Your task to perform on an android device: delete browsing data in the chrome app Image 0: 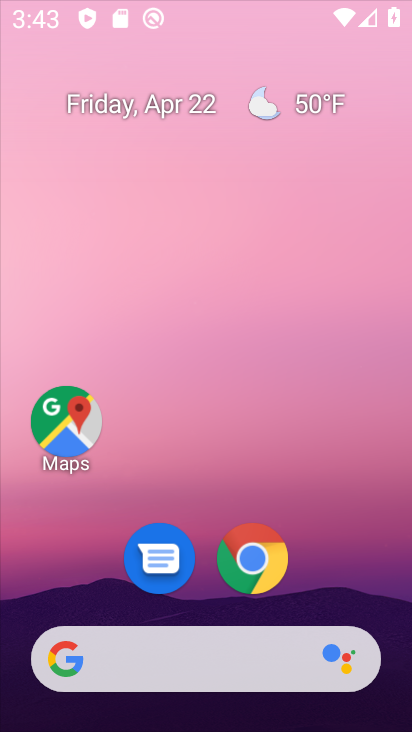
Step 0: click (341, 182)
Your task to perform on an android device: delete browsing data in the chrome app Image 1: 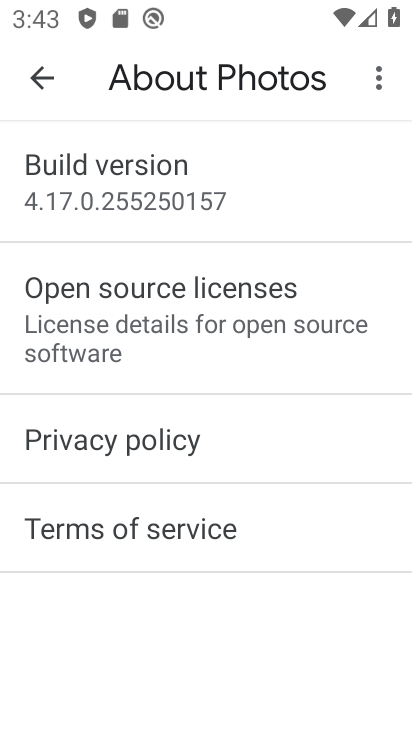
Step 1: press home button
Your task to perform on an android device: delete browsing data in the chrome app Image 2: 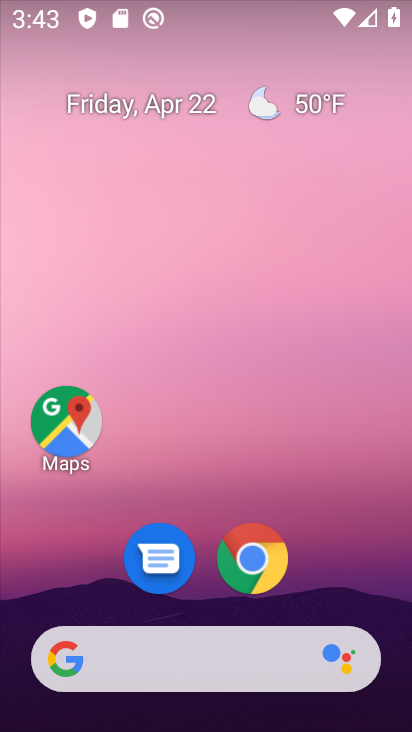
Step 2: drag from (319, 570) to (342, 102)
Your task to perform on an android device: delete browsing data in the chrome app Image 3: 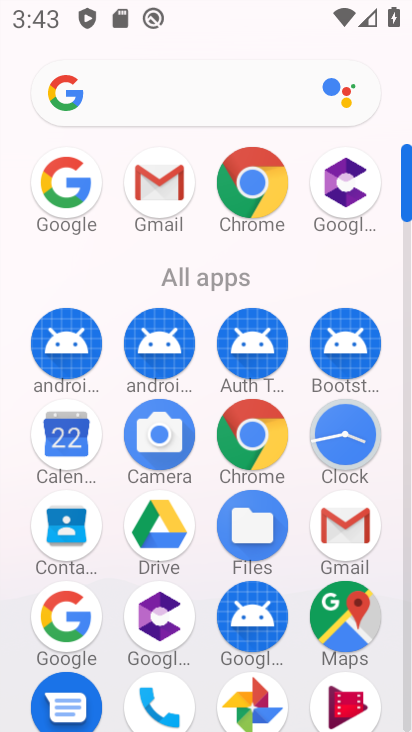
Step 3: click (258, 213)
Your task to perform on an android device: delete browsing data in the chrome app Image 4: 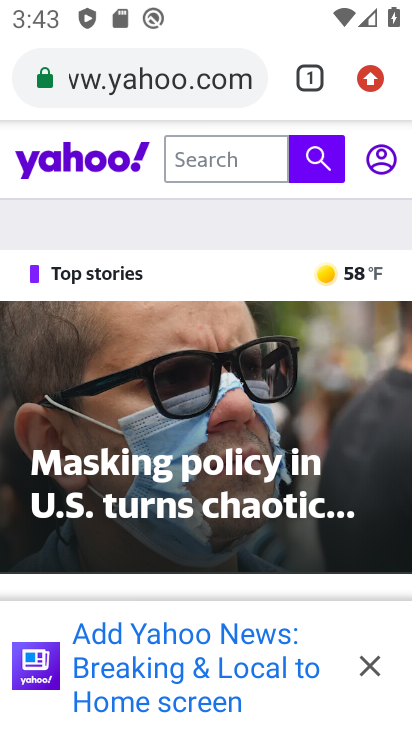
Step 4: click (367, 77)
Your task to perform on an android device: delete browsing data in the chrome app Image 5: 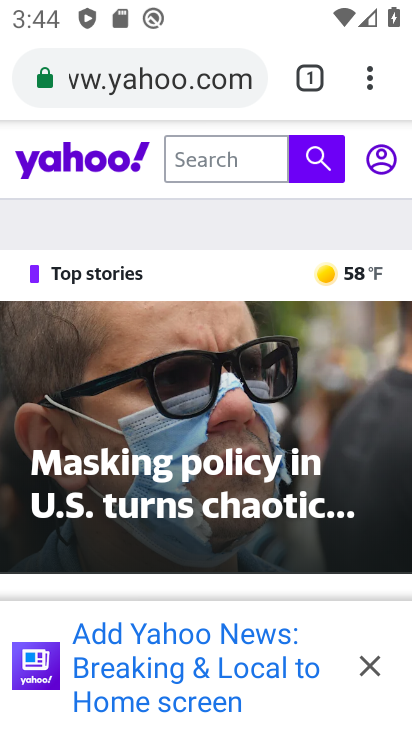
Step 5: click (369, 77)
Your task to perform on an android device: delete browsing data in the chrome app Image 6: 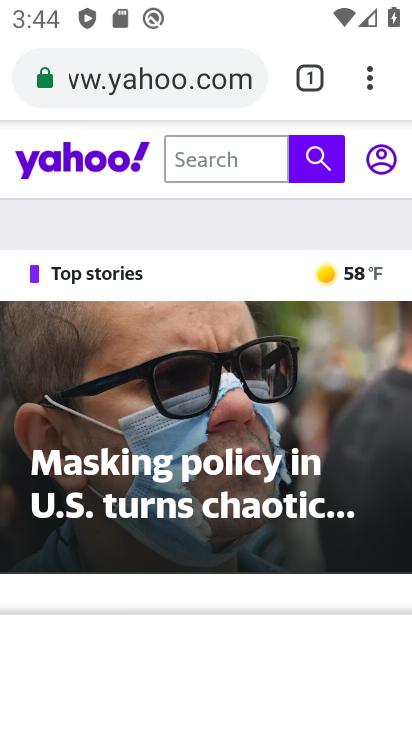
Step 6: click (368, 78)
Your task to perform on an android device: delete browsing data in the chrome app Image 7: 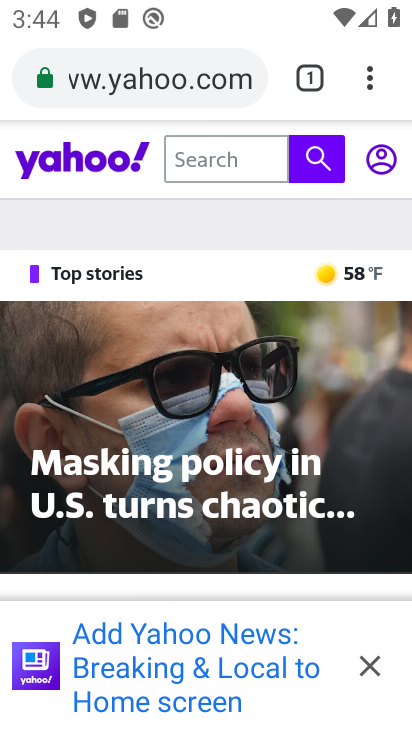
Step 7: click (372, 81)
Your task to perform on an android device: delete browsing data in the chrome app Image 8: 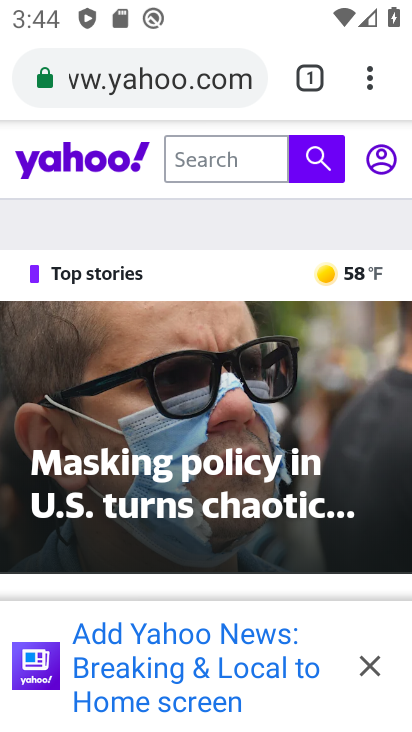
Step 8: click (372, 78)
Your task to perform on an android device: delete browsing data in the chrome app Image 9: 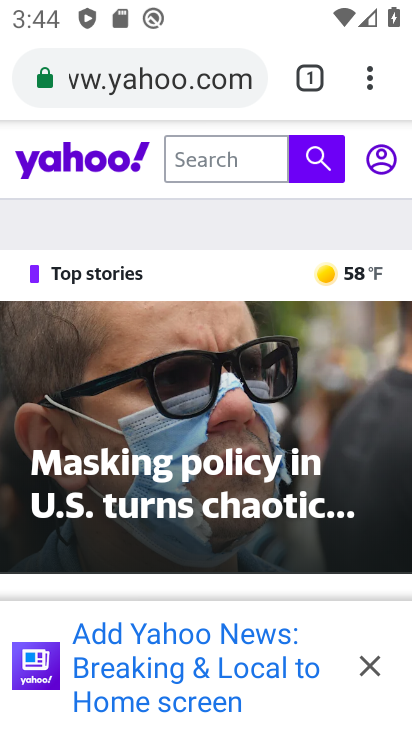
Step 9: click (373, 76)
Your task to perform on an android device: delete browsing data in the chrome app Image 10: 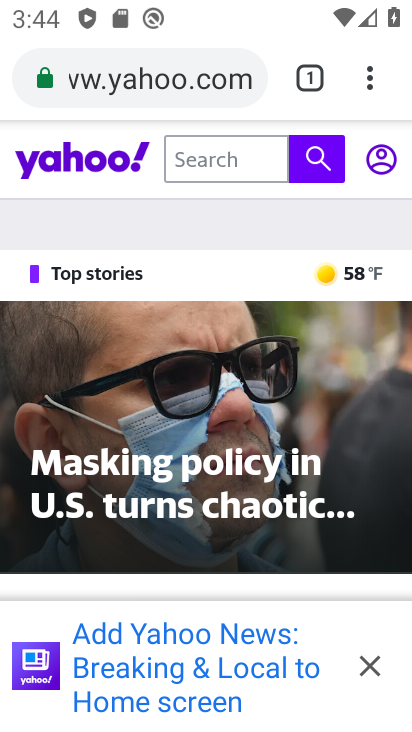
Step 10: click (371, 84)
Your task to perform on an android device: delete browsing data in the chrome app Image 11: 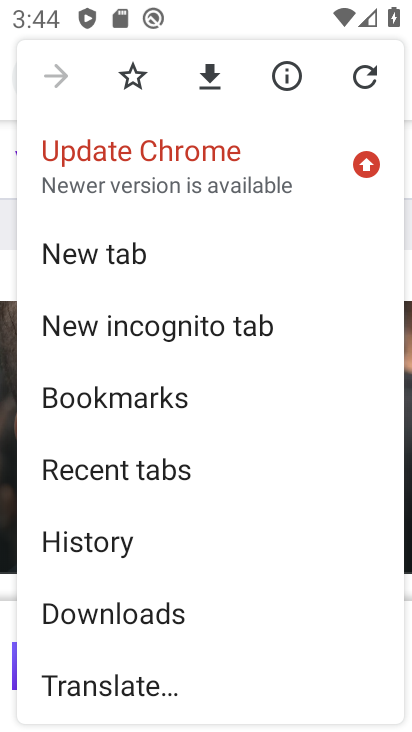
Step 11: drag from (186, 498) to (198, 295)
Your task to perform on an android device: delete browsing data in the chrome app Image 12: 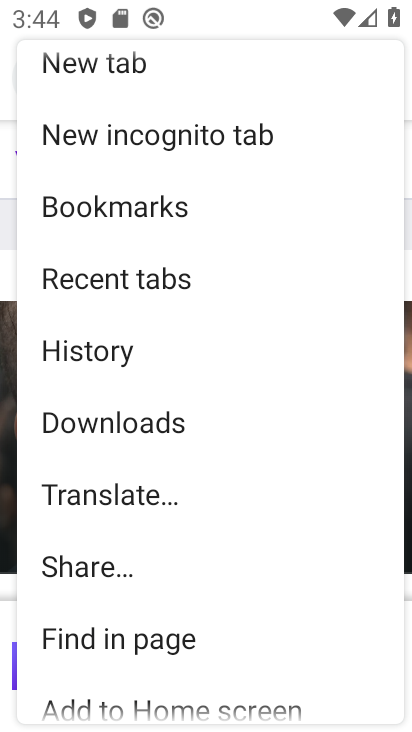
Step 12: drag from (198, 623) to (197, 249)
Your task to perform on an android device: delete browsing data in the chrome app Image 13: 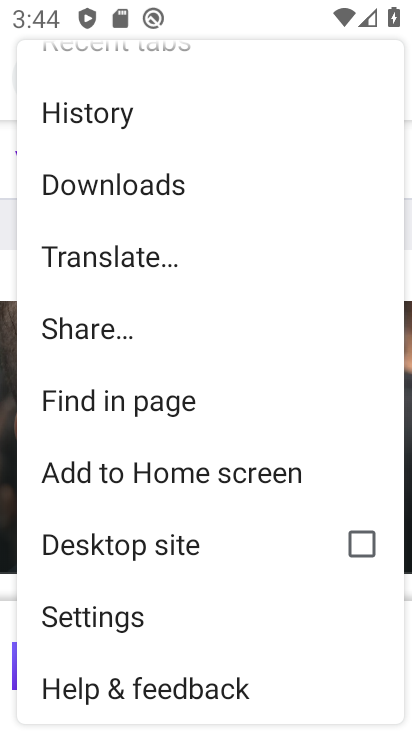
Step 13: click (104, 122)
Your task to perform on an android device: delete browsing data in the chrome app Image 14: 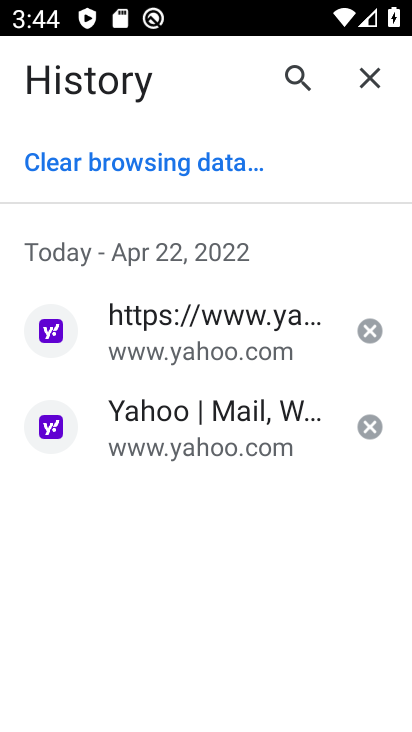
Step 14: click (193, 162)
Your task to perform on an android device: delete browsing data in the chrome app Image 15: 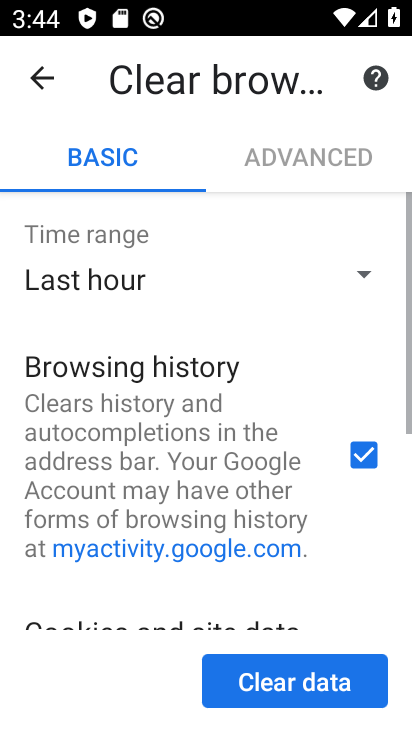
Step 15: drag from (279, 544) to (308, 160)
Your task to perform on an android device: delete browsing data in the chrome app Image 16: 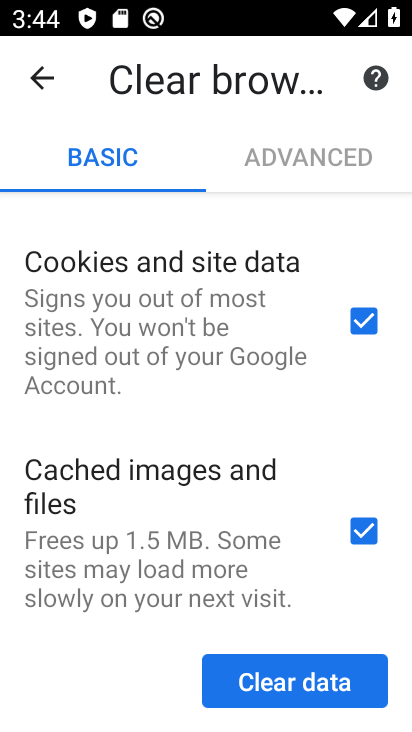
Step 16: click (273, 681)
Your task to perform on an android device: delete browsing data in the chrome app Image 17: 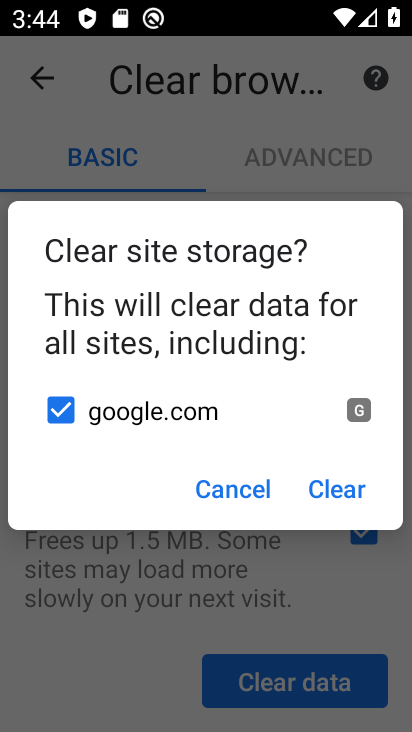
Step 17: click (330, 485)
Your task to perform on an android device: delete browsing data in the chrome app Image 18: 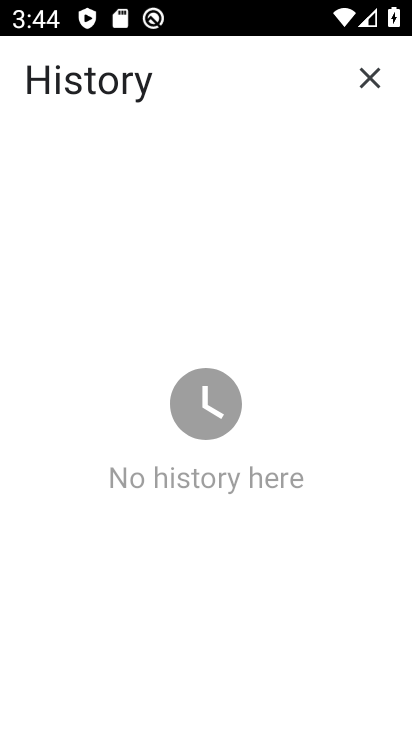
Step 18: task complete